Your task to perform on an android device: set an alarm Image 0: 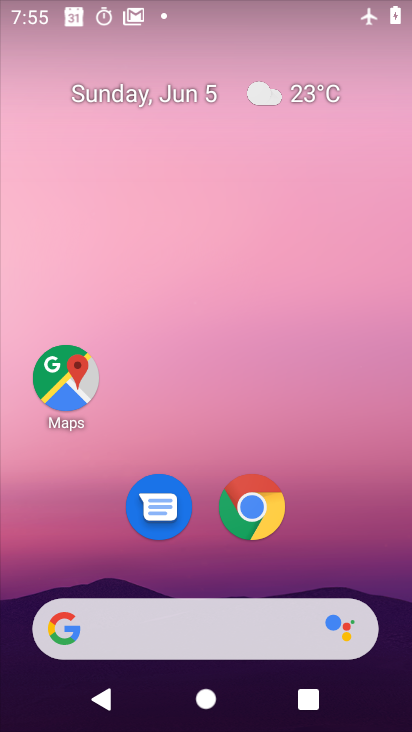
Step 0: drag from (241, 602) to (213, 21)
Your task to perform on an android device: set an alarm Image 1: 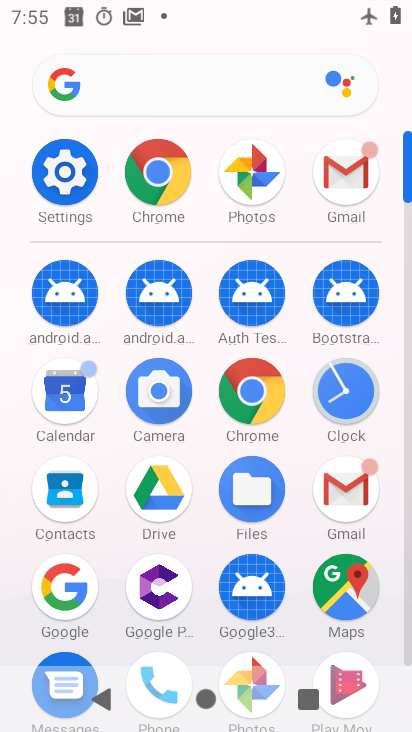
Step 1: click (355, 406)
Your task to perform on an android device: set an alarm Image 2: 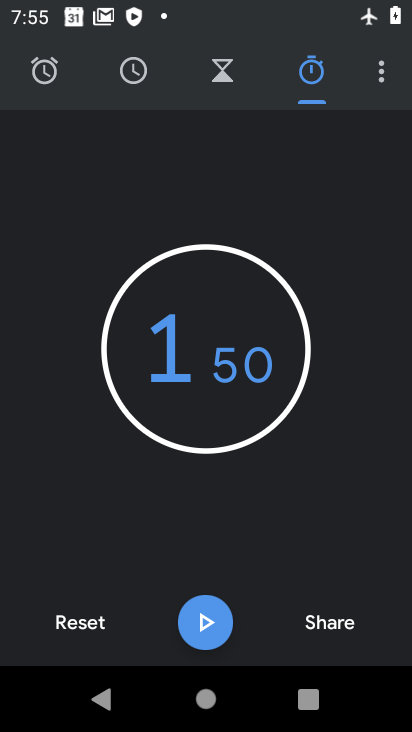
Step 2: click (28, 76)
Your task to perform on an android device: set an alarm Image 3: 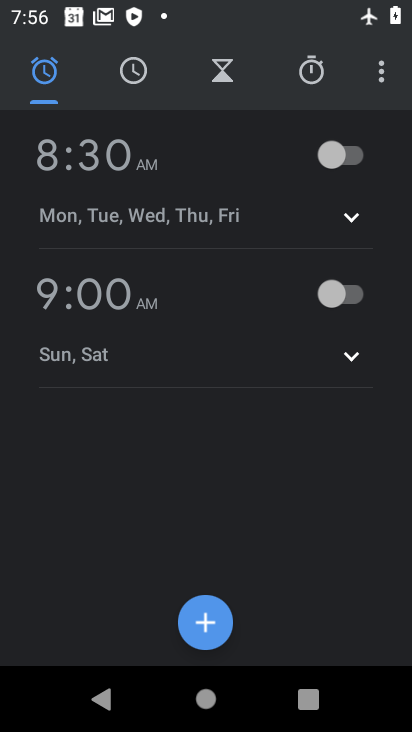
Step 3: click (351, 165)
Your task to perform on an android device: set an alarm Image 4: 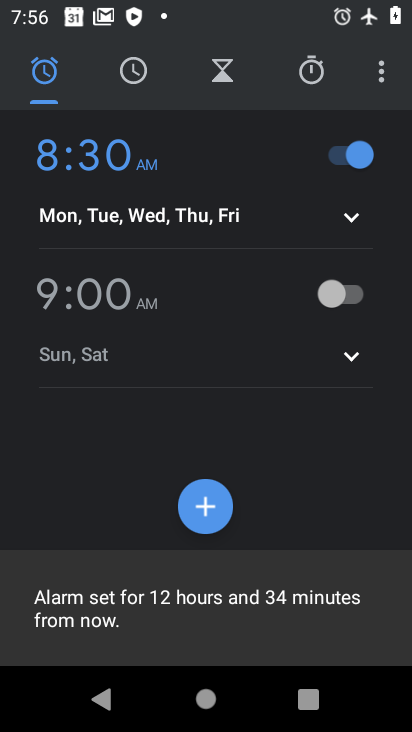
Step 4: task complete